Your task to perform on an android device: open device folders in google photos Image 0: 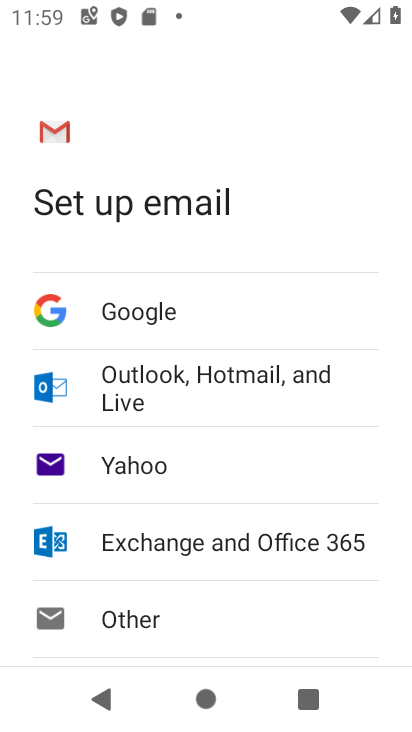
Step 0: press home button
Your task to perform on an android device: open device folders in google photos Image 1: 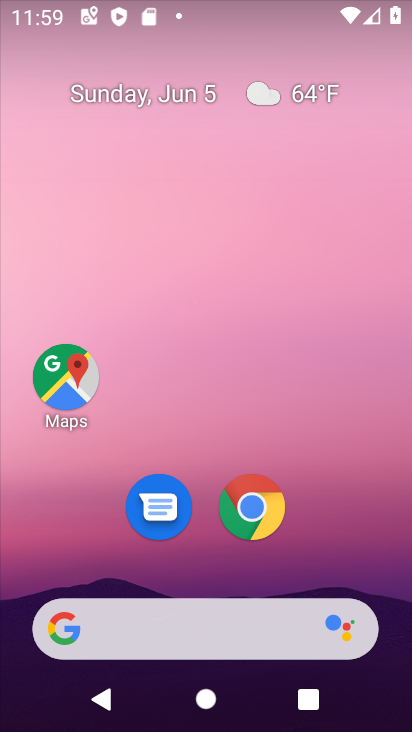
Step 1: drag from (342, 506) to (328, 153)
Your task to perform on an android device: open device folders in google photos Image 2: 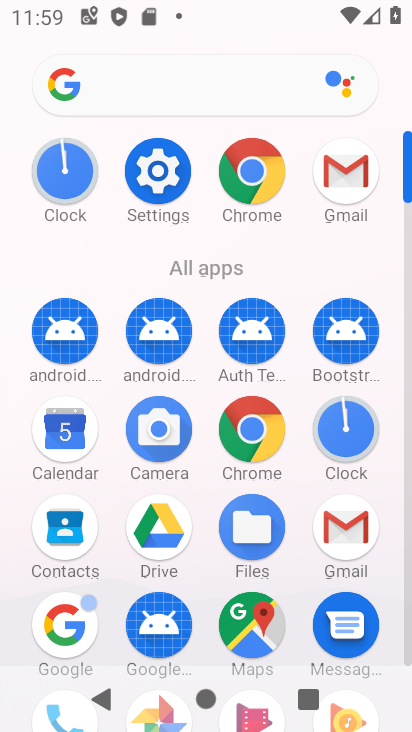
Step 2: drag from (186, 579) to (239, 350)
Your task to perform on an android device: open device folders in google photos Image 3: 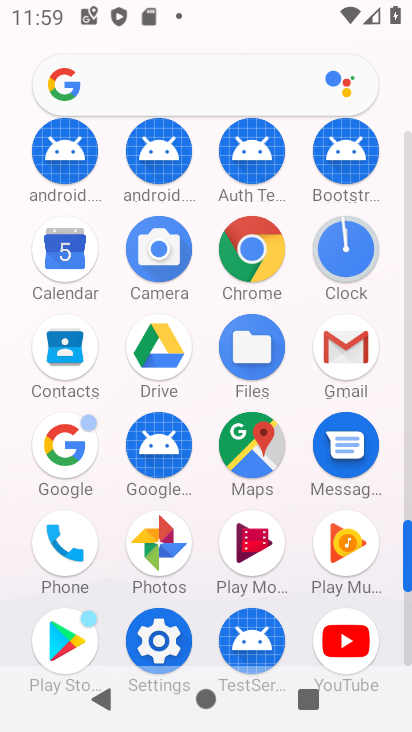
Step 3: click (158, 550)
Your task to perform on an android device: open device folders in google photos Image 4: 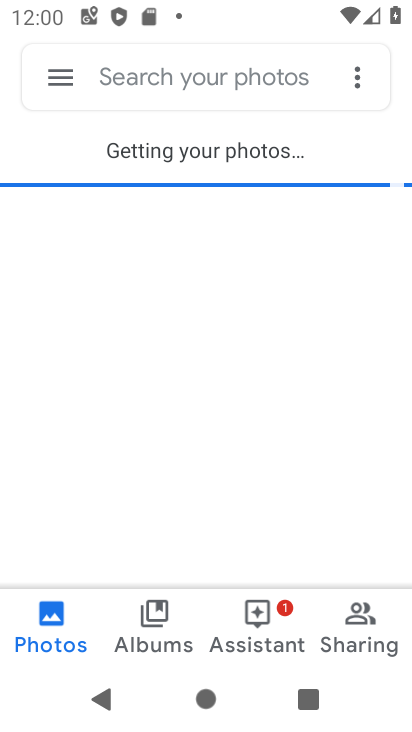
Step 4: click (60, 76)
Your task to perform on an android device: open device folders in google photos Image 5: 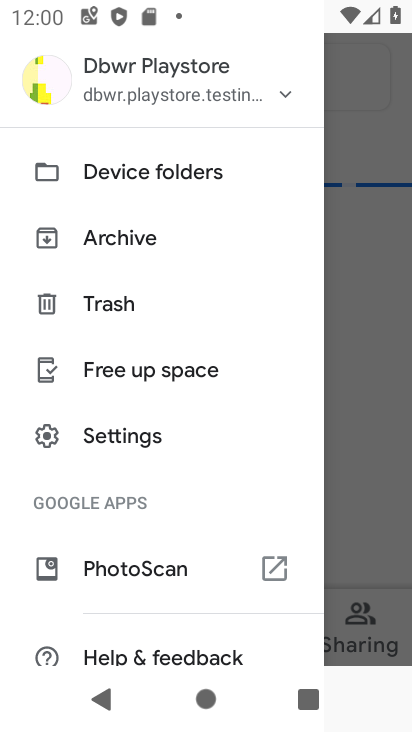
Step 5: click (89, 187)
Your task to perform on an android device: open device folders in google photos Image 6: 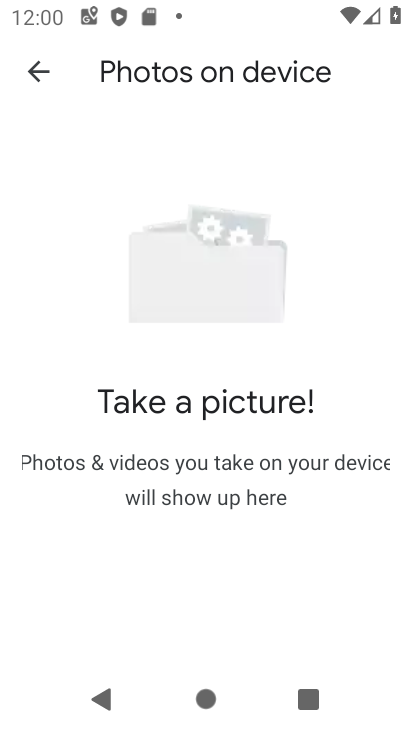
Step 6: task complete